Your task to perform on an android device: Search for bose soundsport free on ebay, select the first entry, add it to the cart, then select checkout. Image 0: 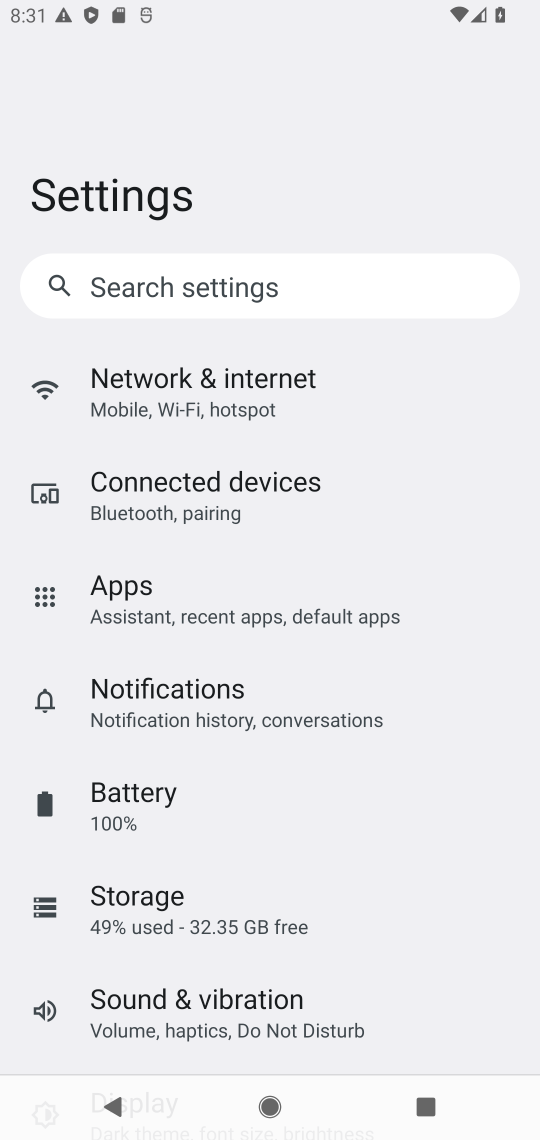
Step 0: press home button
Your task to perform on an android device: Search for bose soundsport free on ebay, select the first entry, add it to the cart, then select checkout. Image 1: 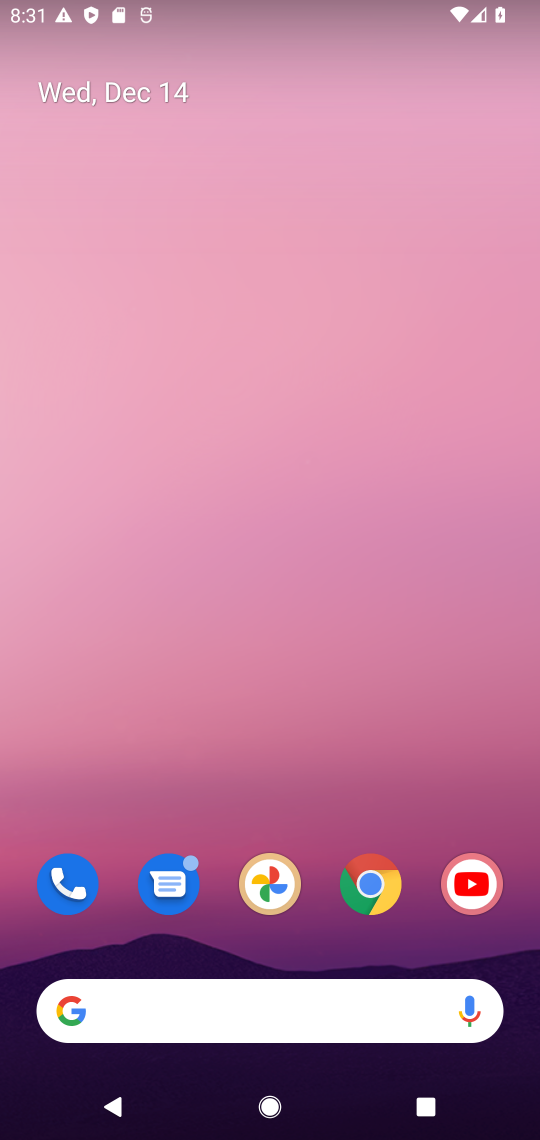
Step 1: click (354, 866)
Your task to perform on an android device: Search for bose soundsport free on ebay, select the first entry, add it to the cart, then select checkout. Image 2: 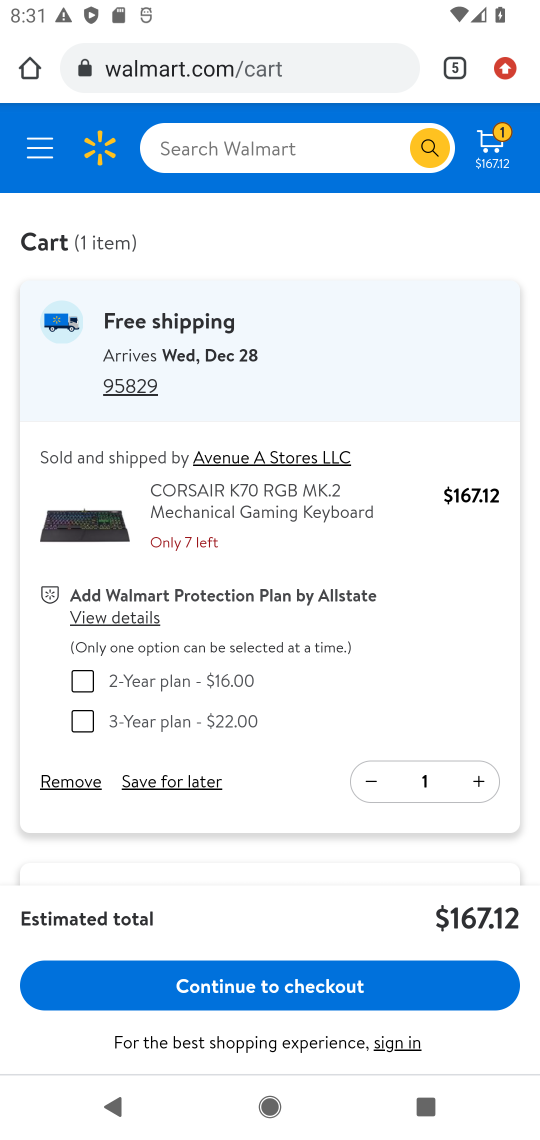
Step 2: click (455, 65)
Your task to perform on an android device: Search for bose soundsport free on ebay, select the first entry, add it to the cart, then select checkout. Image 3: 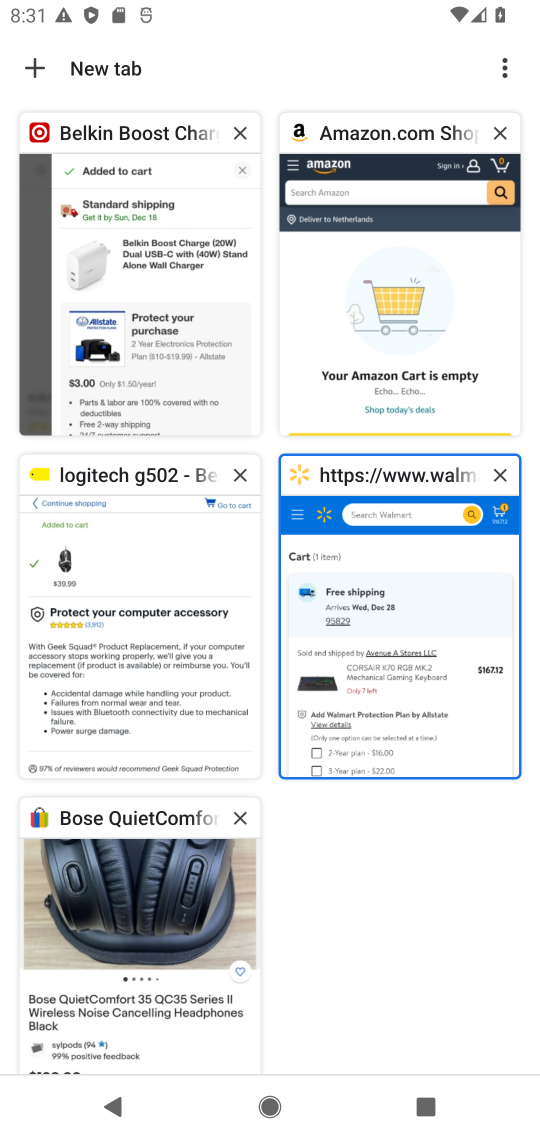
Step 3: click (150, 888)
Your task to perform on an android device: Search for bose soundsport free on ebay, select the first entry, add it to the cart, then select checkout. Image 4: 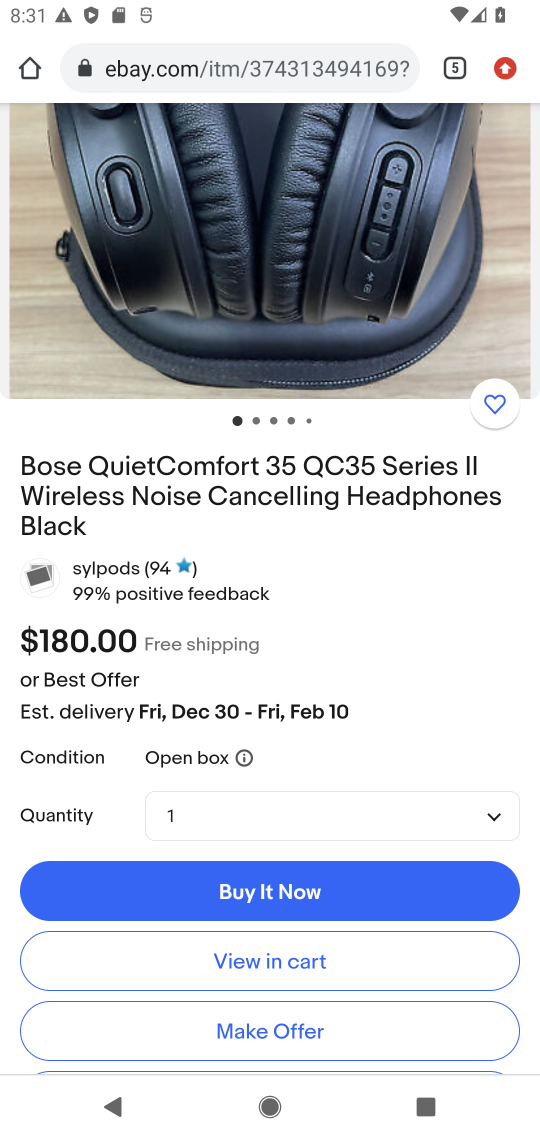
Step 4: drag from (378, 141) to (431, 964)
Your task to perform on an android device: Search for bose soundsport free on ebay, select the first entry, add it to the cart, then select checkout. Image 5: 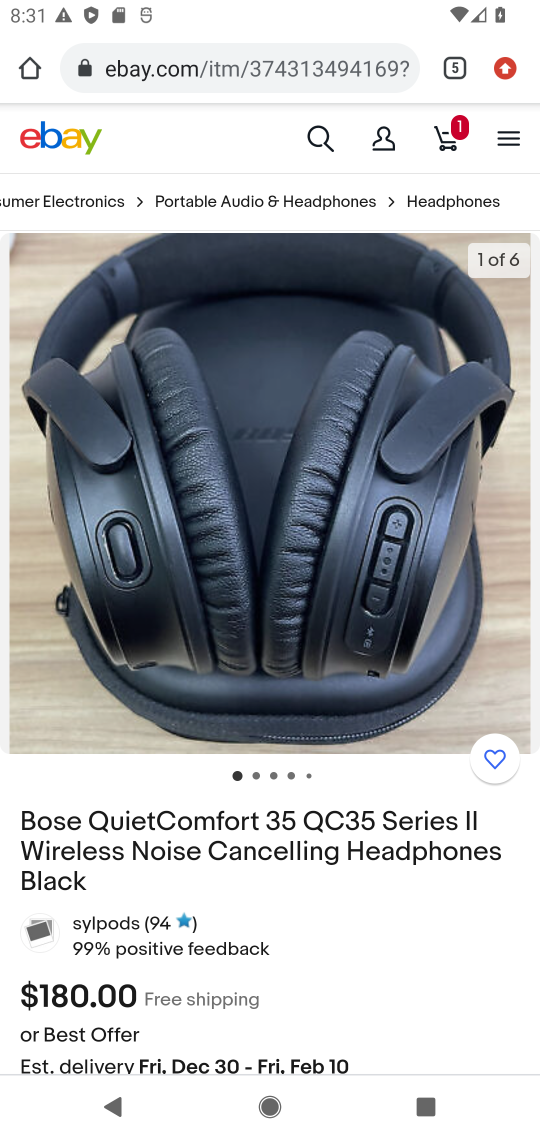
Step 5: click (319, 129)
Your task to perform on an android device: Search for bose soundsport free on ebay, select the first entry, add it to the cart, then select checkout. Image 6: 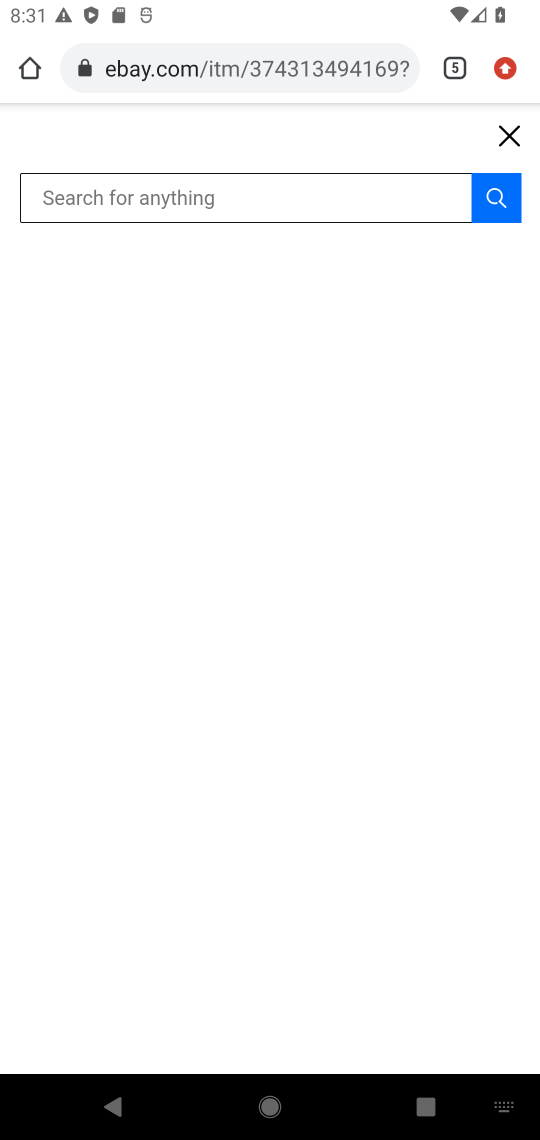
Step 6: type "bose soundsport free"
Your task to perform on an android device: Search for bose soundsport free on ebay, select the first entry, add it to the cart, then select checkout. Image 7: 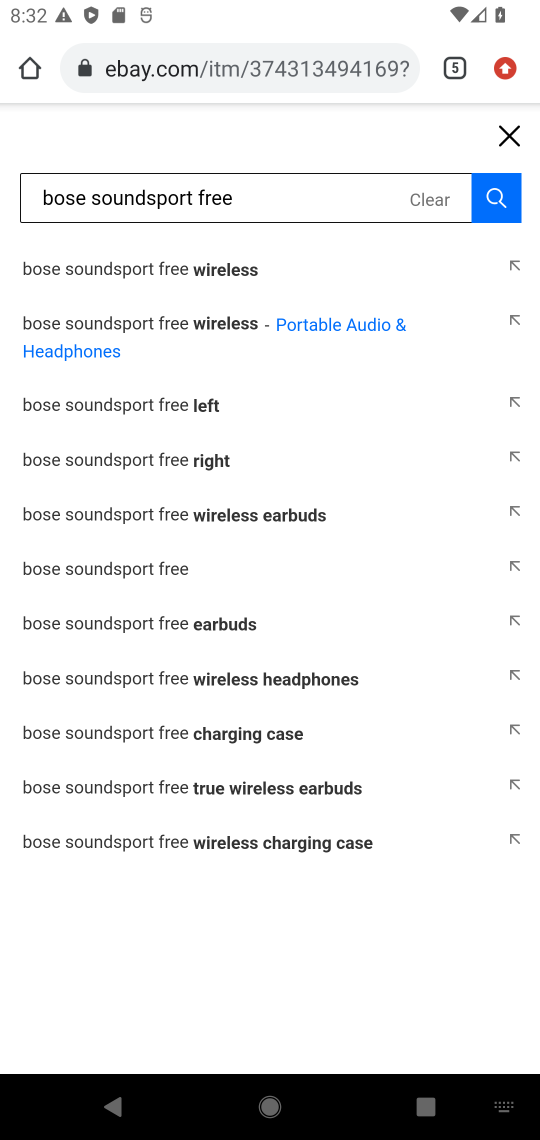
Step 7: click (226, 326)
Your task to perform on an android device: Search for bose soundsport free on ebay, select the first entry, add it to the cart, then select checkout. Image 8: 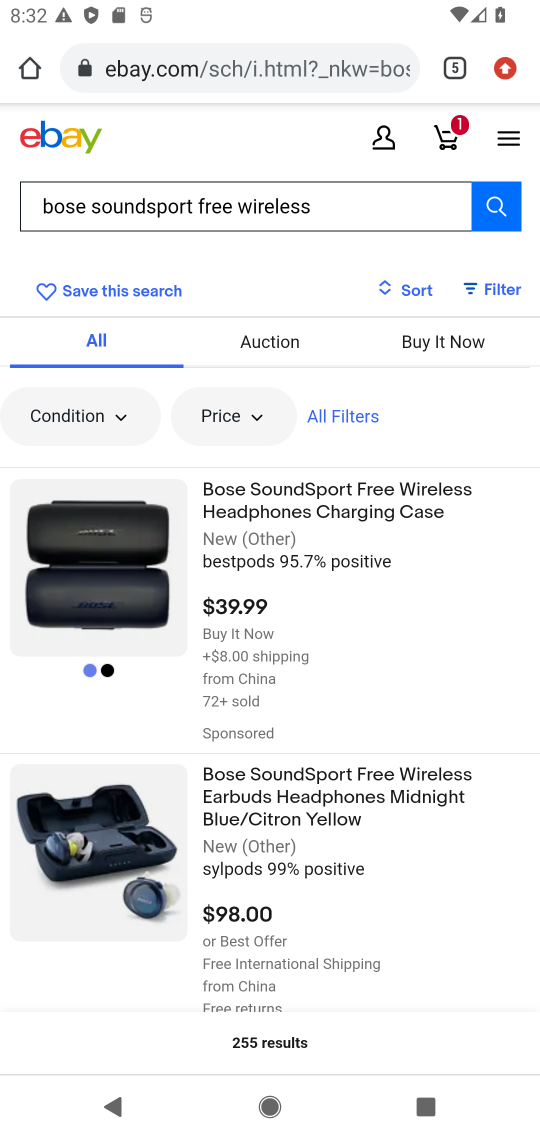
Step 8: click (307, 511)
Your task to perform on an android device: Search for bose soundsport free on ebay, select the first entry, add it to the cart, then select checkout. Image 9: 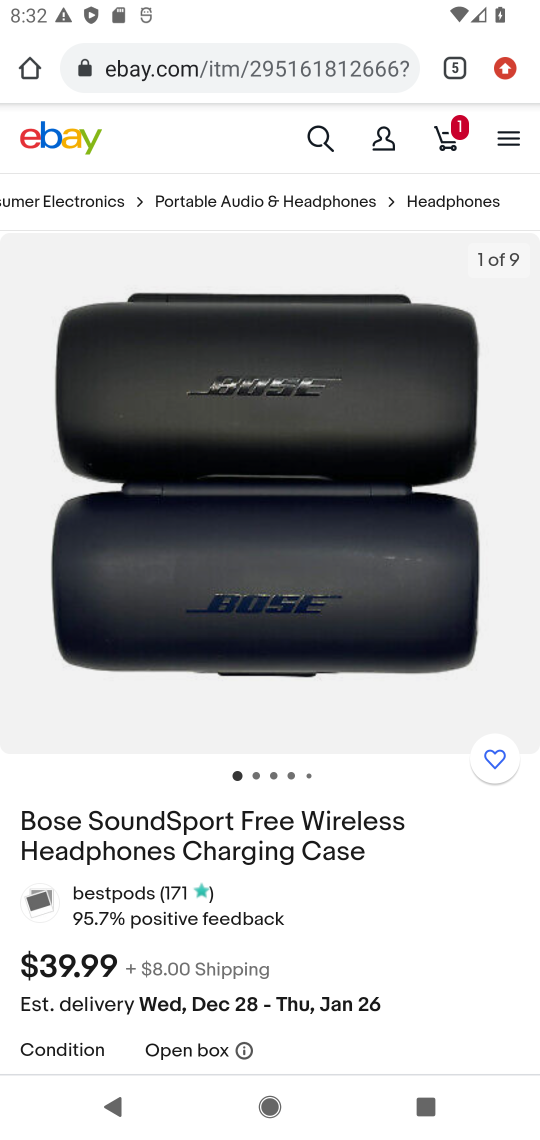
Step 9: drag from (209, 1010) to (407, 35)
Your task to perform on an android device: Search for bose soundsport free on ebay, select the first entry, add it to the cart, then select checkout. Image 10: 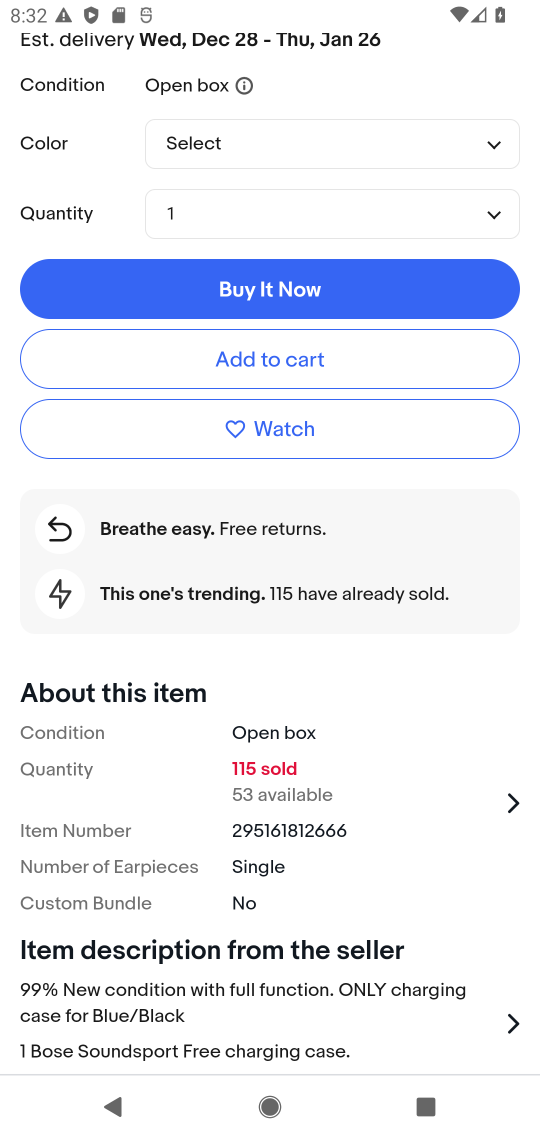
Step 10: click (343, 367)
Your task to perform on an android device: Search for bose soundsport free on ebay, select the first entry, add it to the cart, then select checkout. Image 11: 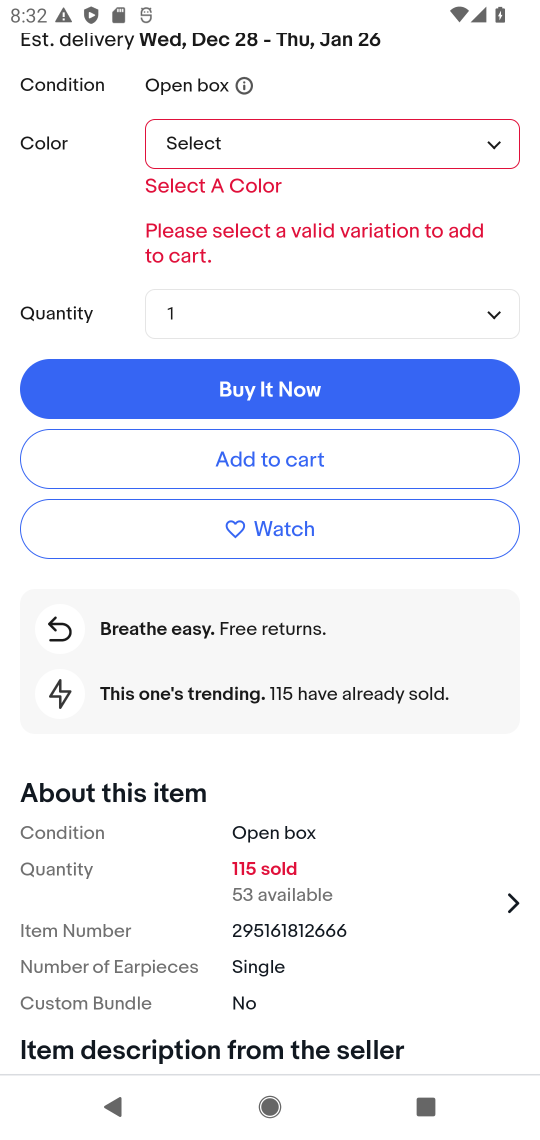
Step 11: click (277, 351)
Your task to perform on an android device: Search for bose soundsport free on ebay, select the first entry, add it to the cart, then select checkout. Image 12: 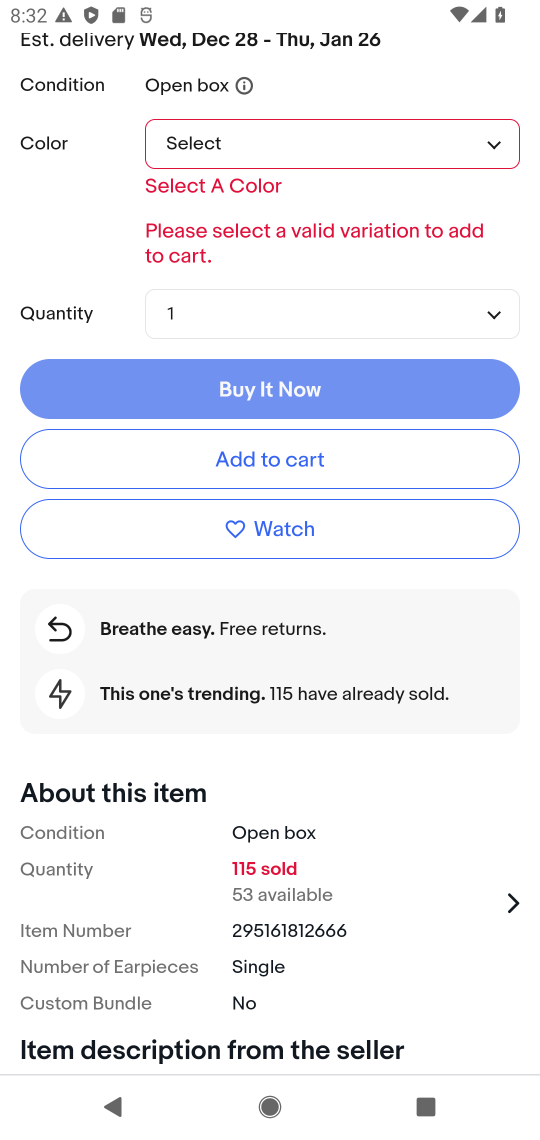
Step 12: click (447, 140)
Your task to perform on an android device: Search for bose soundsport free on ebay, select the first entry, add it to the cart, then select checkout. Image 13: 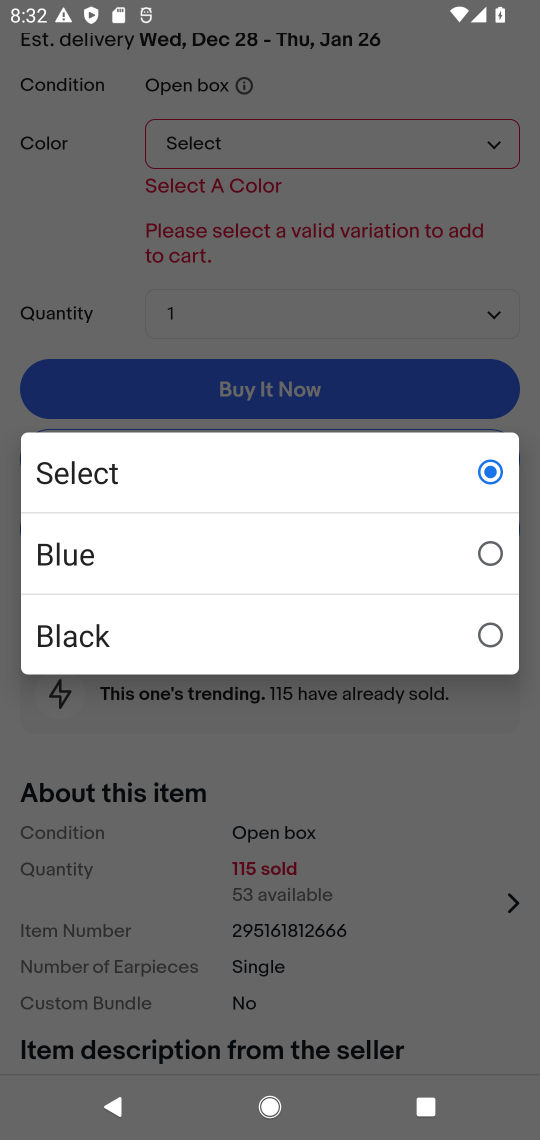
Step 13: click (239, 541)
Your task to perform on an android device: Search for bose soundsport free on ebay, select the first entry, add it to the cart, then select checkout. Image 14: 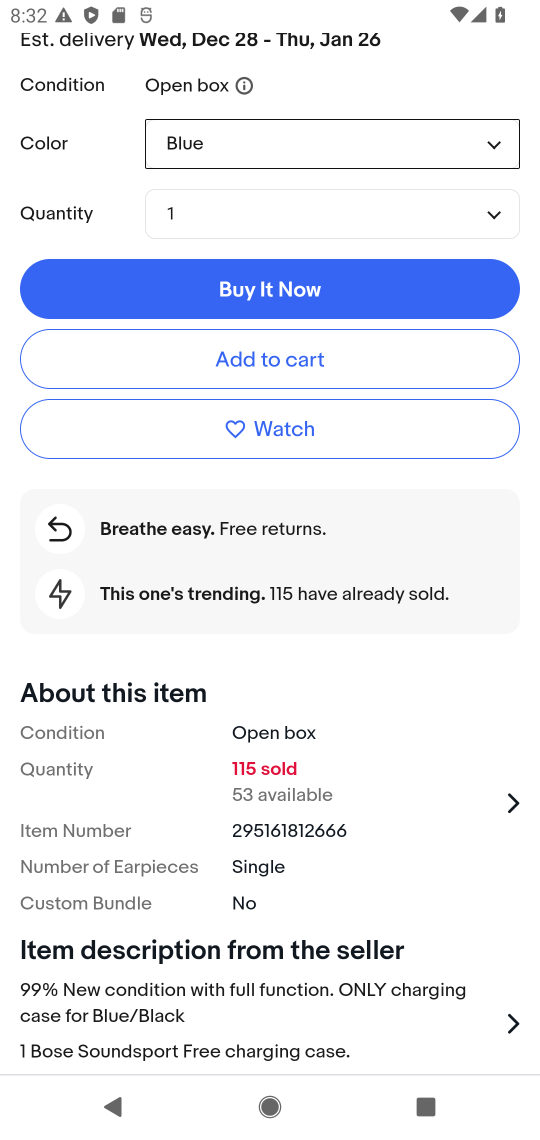
Step 14: click (350, 370)
Your task to perform on an android device: Search for bose soundsport free on ebay, select the first entry, add it to the cart, then select checkout. Image 15: 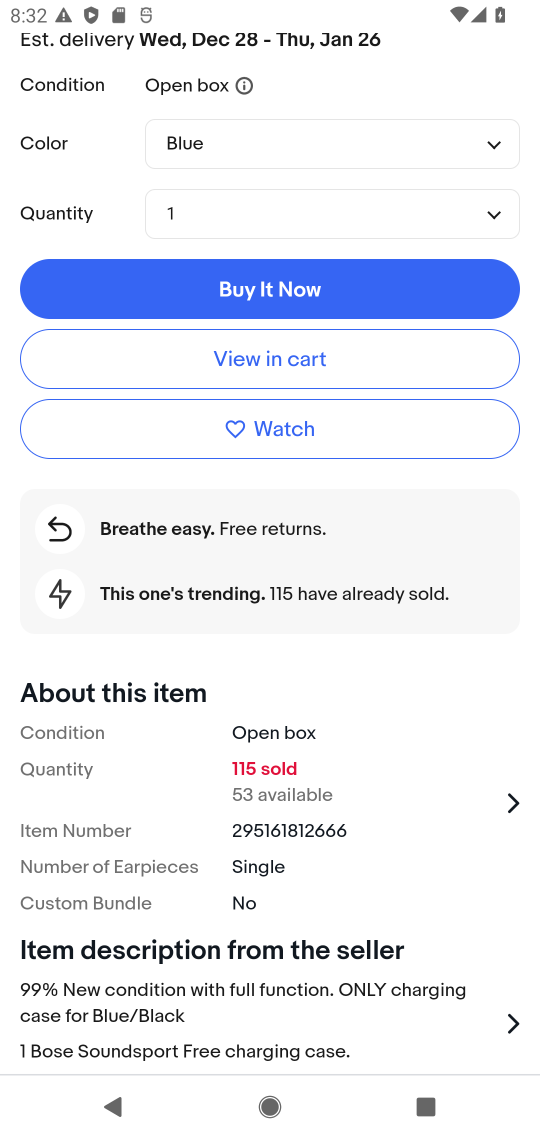
Step 15: task complete